Your task to perform on an android device: Search for "usb-c to usb-a" on ebay.com, select the first entry, and add it to the cart. Image 0: 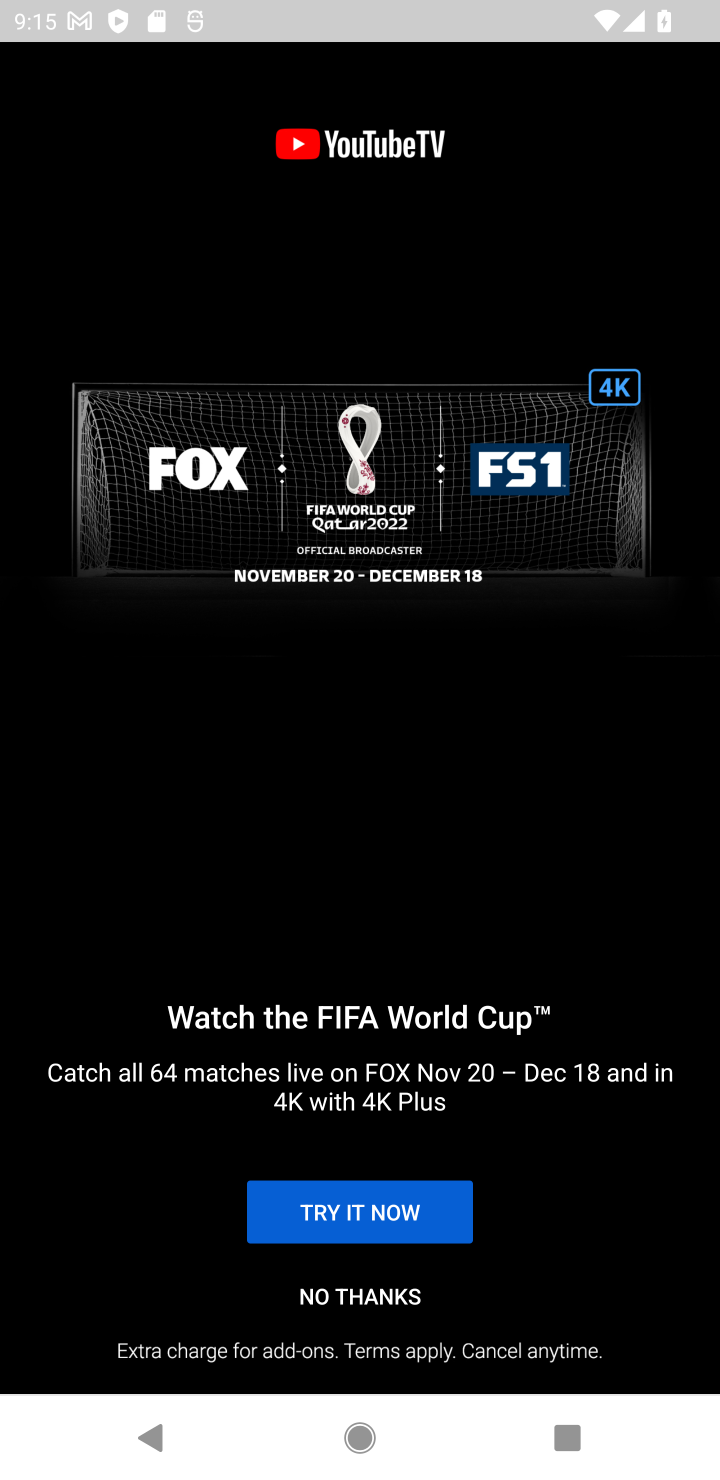
Step 0: press home button
Your task to perform on an android device: Search for "usb-c to usb-a" on ebay.com, select the first entry, and add it to the cart. Image 1: 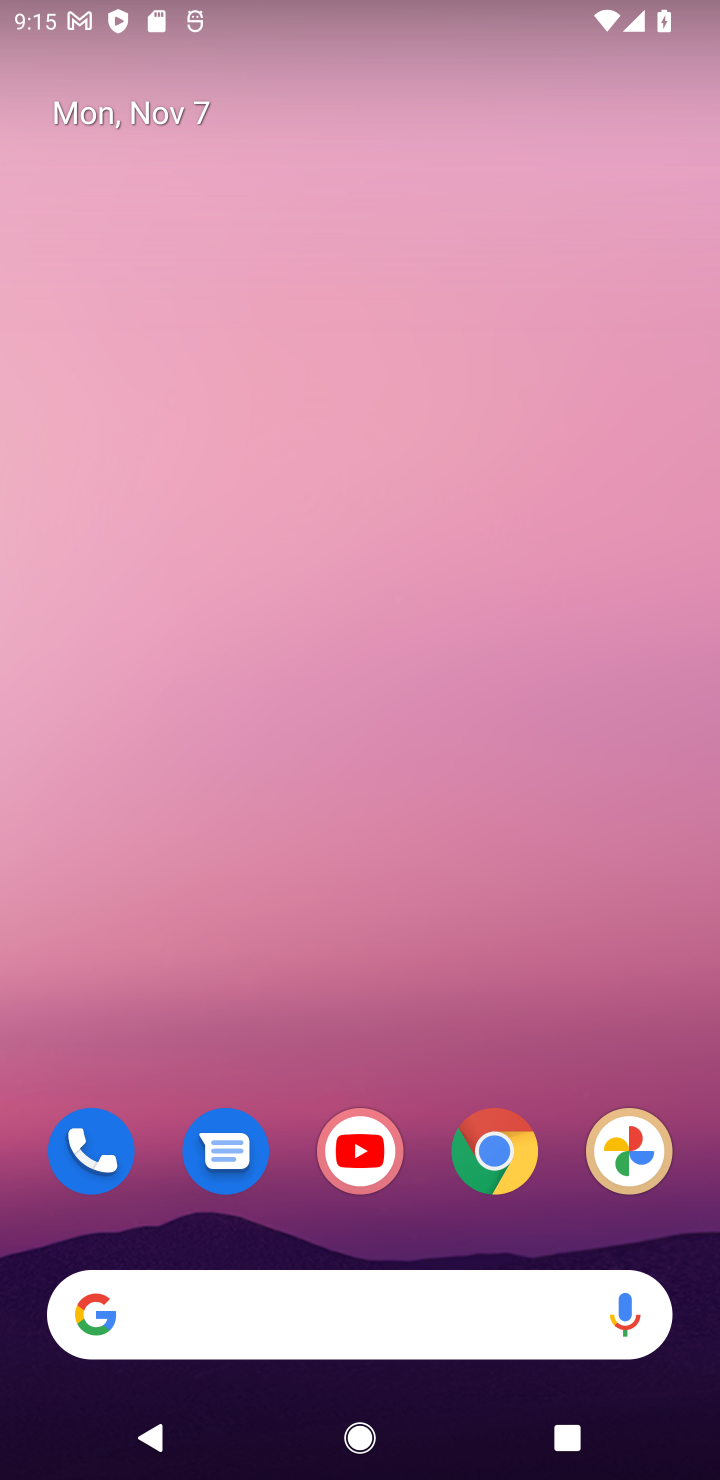
Step 1: click (504, 1153)
Your task to perform on an android device: Search for "usb-c to usb-a" on ebay.com, select the first entry, and add it to the cart. Image 2: 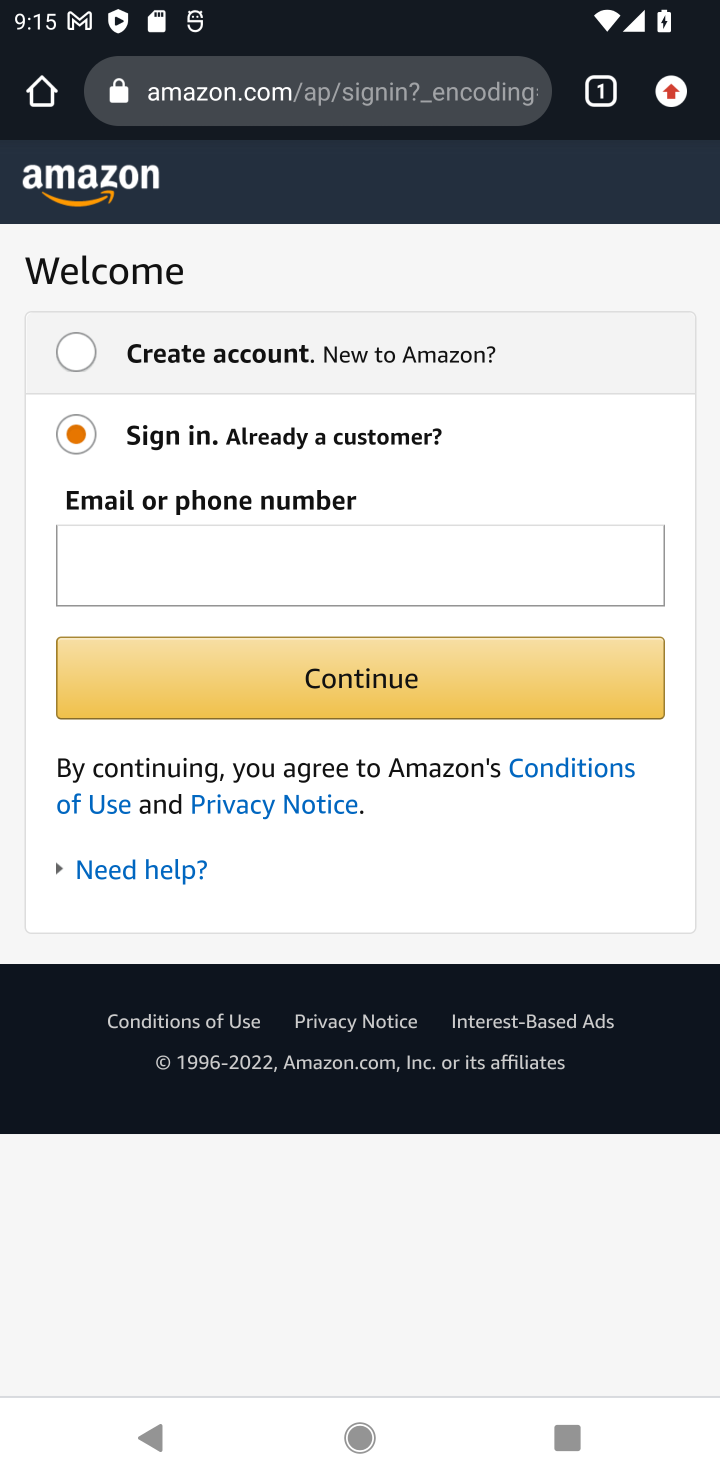
Step 2: click (366, 109)
Your task to perform on an android device: Search for "usb-c to usb-a" on ebay.com, select the first entry, and add it to the cart. Image 3: 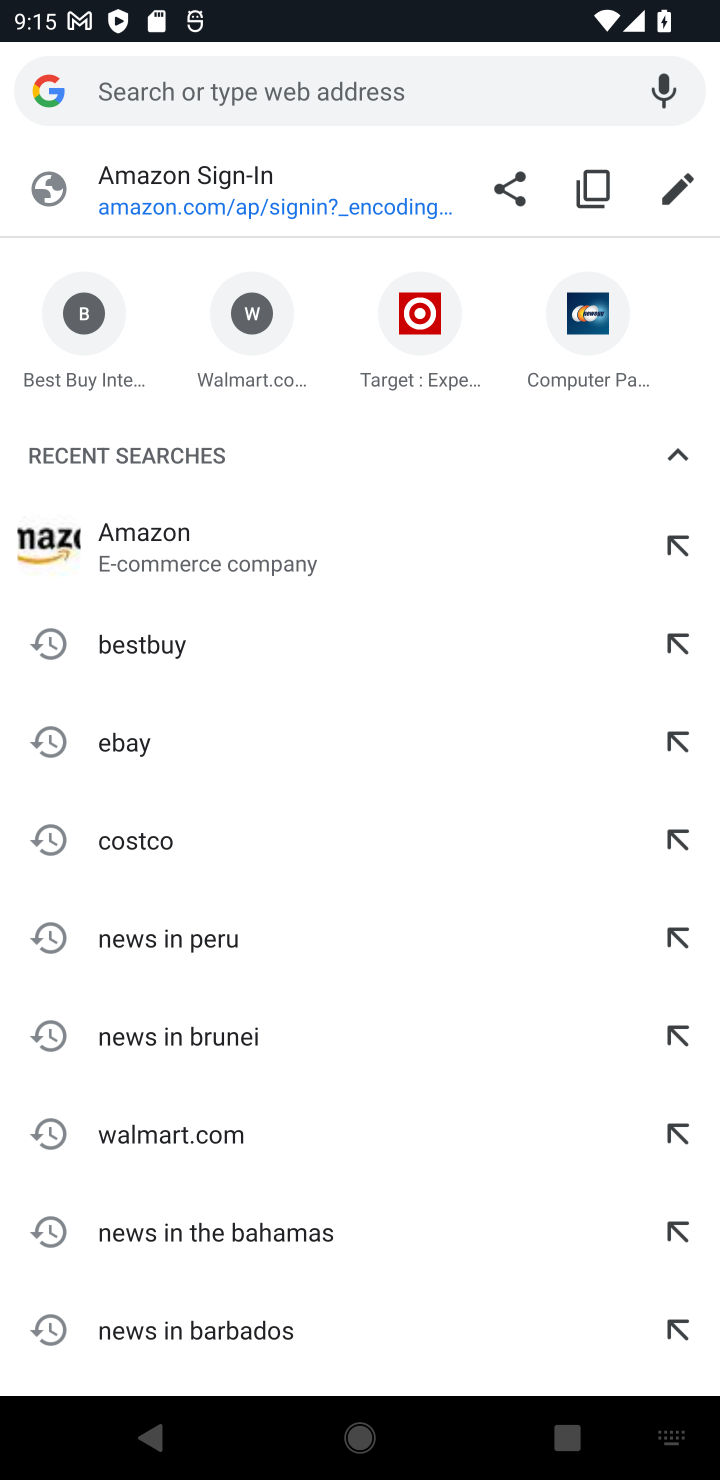
Step 3: click (111, 747)
Your task to perform on an android device: Search for "usb-c to usb-a" on ebay.com, select the first entry, and add it to the cart. Image 4: 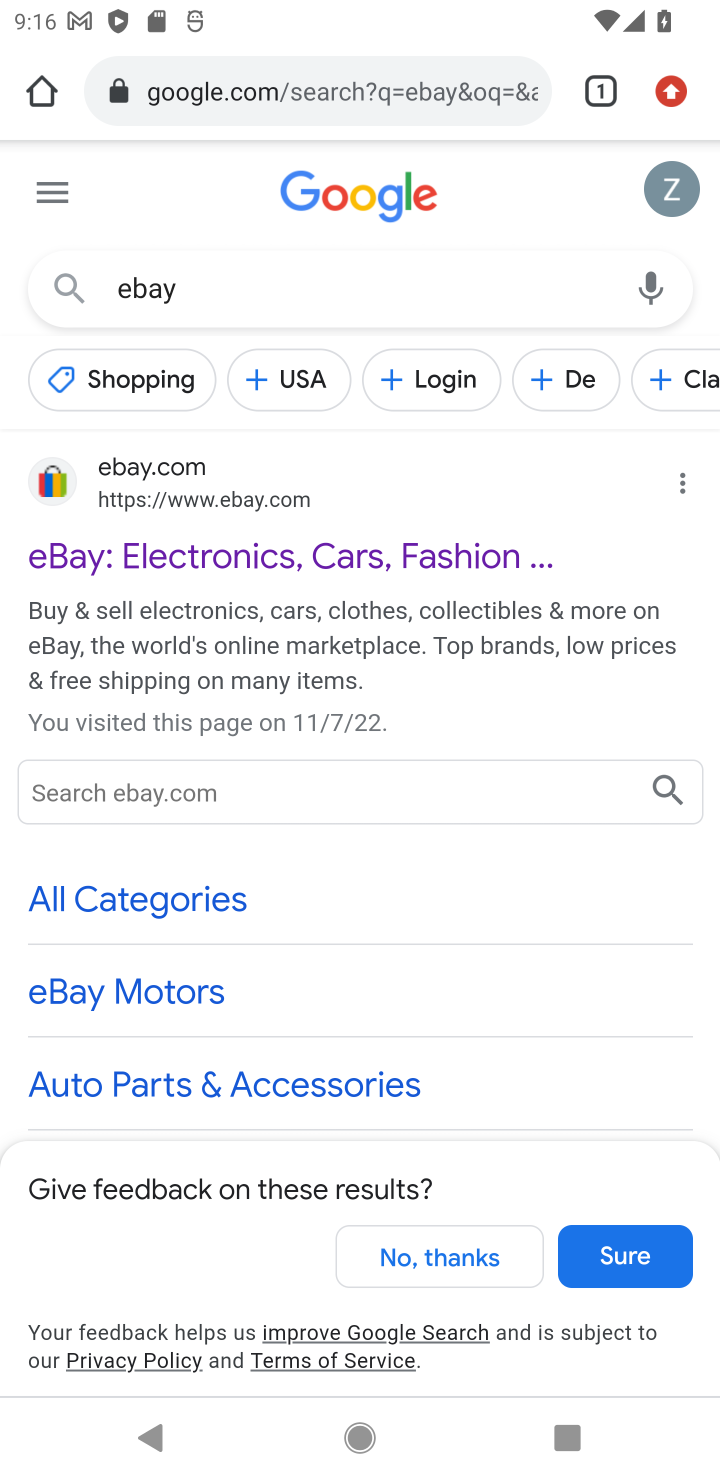
Step 4: click (278, 550)
Your task to perform on an android device: Search for "usb-c to usb-a" on ebay.com, select the first entry, and add it to the cart. Image 5: 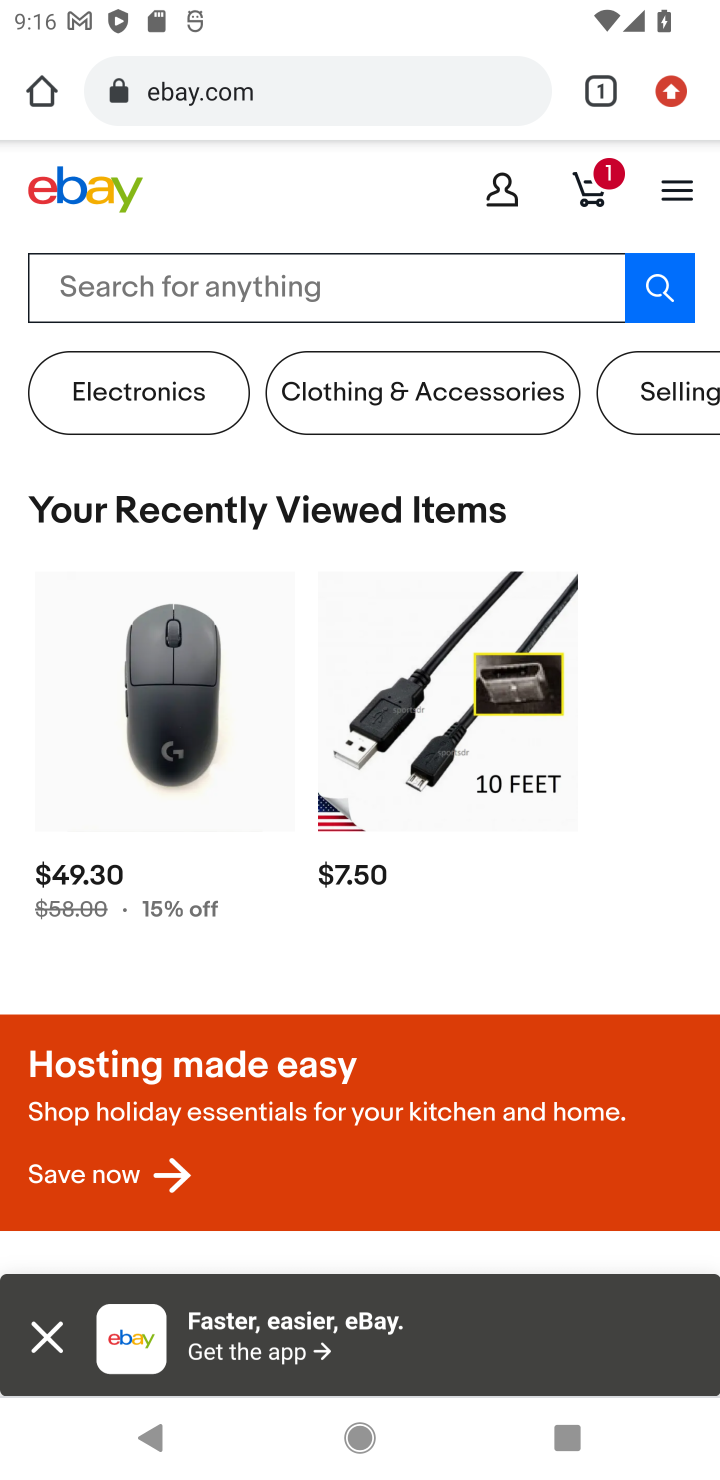
Step 5: click (289, 286)
Your task to perform on an android device: Search for "usb-c to usb-a" on ebay.com, select the first entry, and add it to the cart. Image 6: 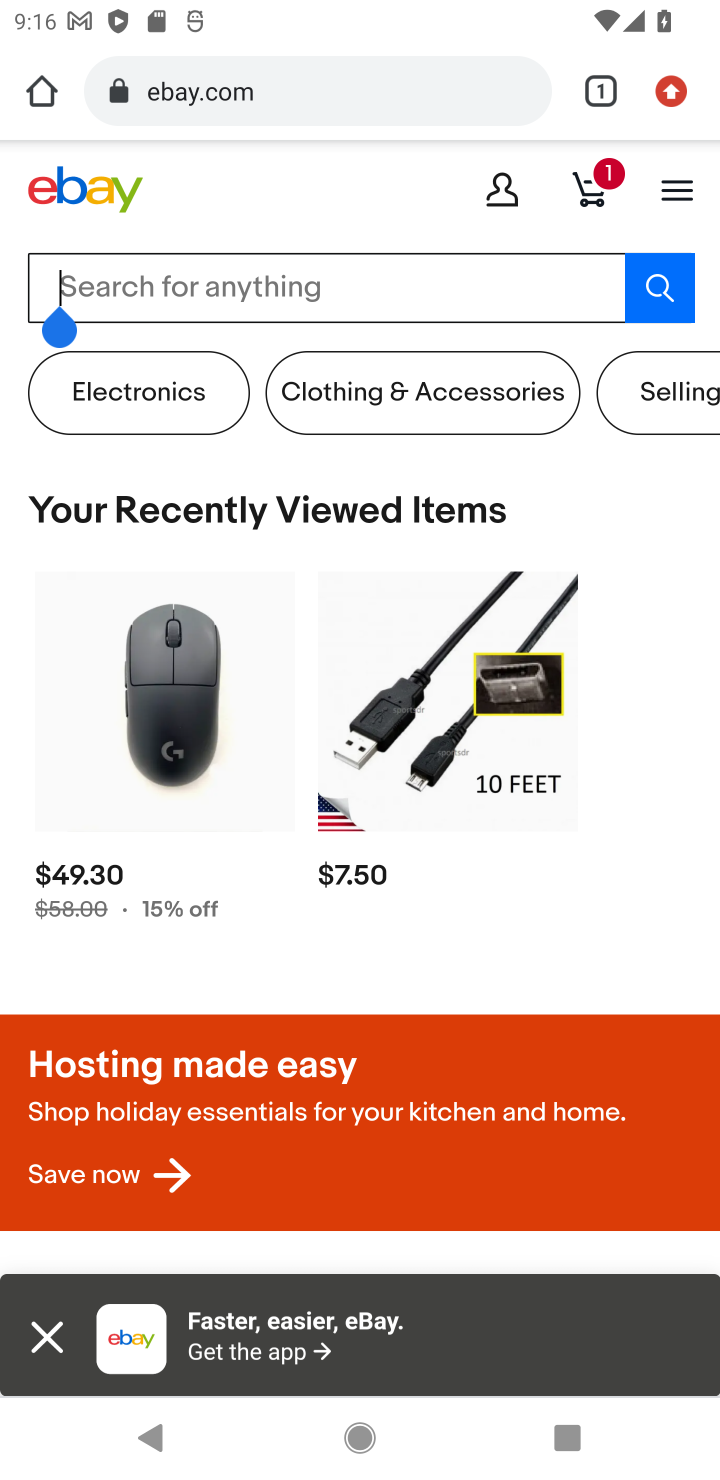
Step 6: type "usb-c to usb-a"
Your task to perform on an android device: Search for "usb-c to usb-a" on ebay.com, select the first entry, and add it to the cart. Image 7: 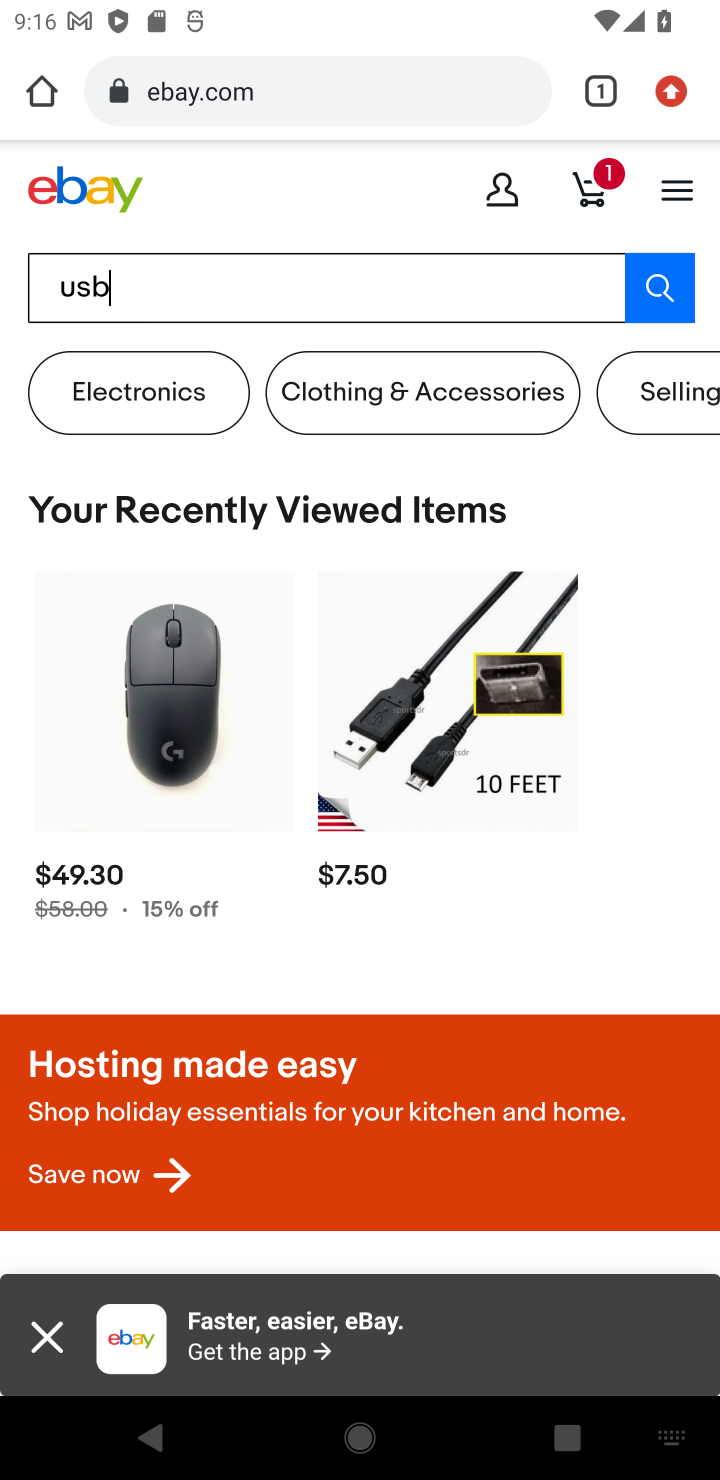
Step 7: press enter
Your task to perform on an android device: Search for "usb-c to usb-a" on ebay.com, select the first entry, and add it to the cart. Image 8: 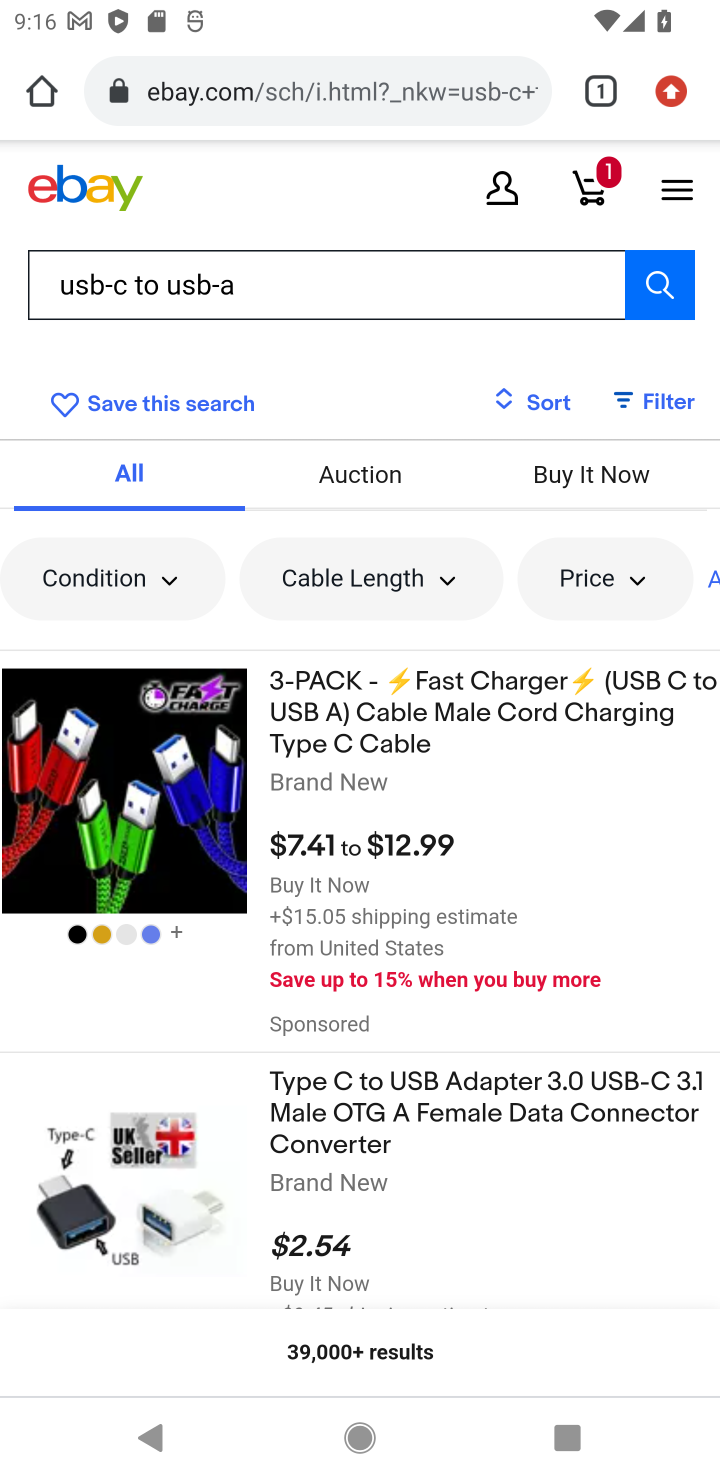
Step 8: click (468, 678)
Your task to perform on an android device: Search for "usb-c to usb-a" on ebay.com, select the first entry, and add it to the cart. Image 9: 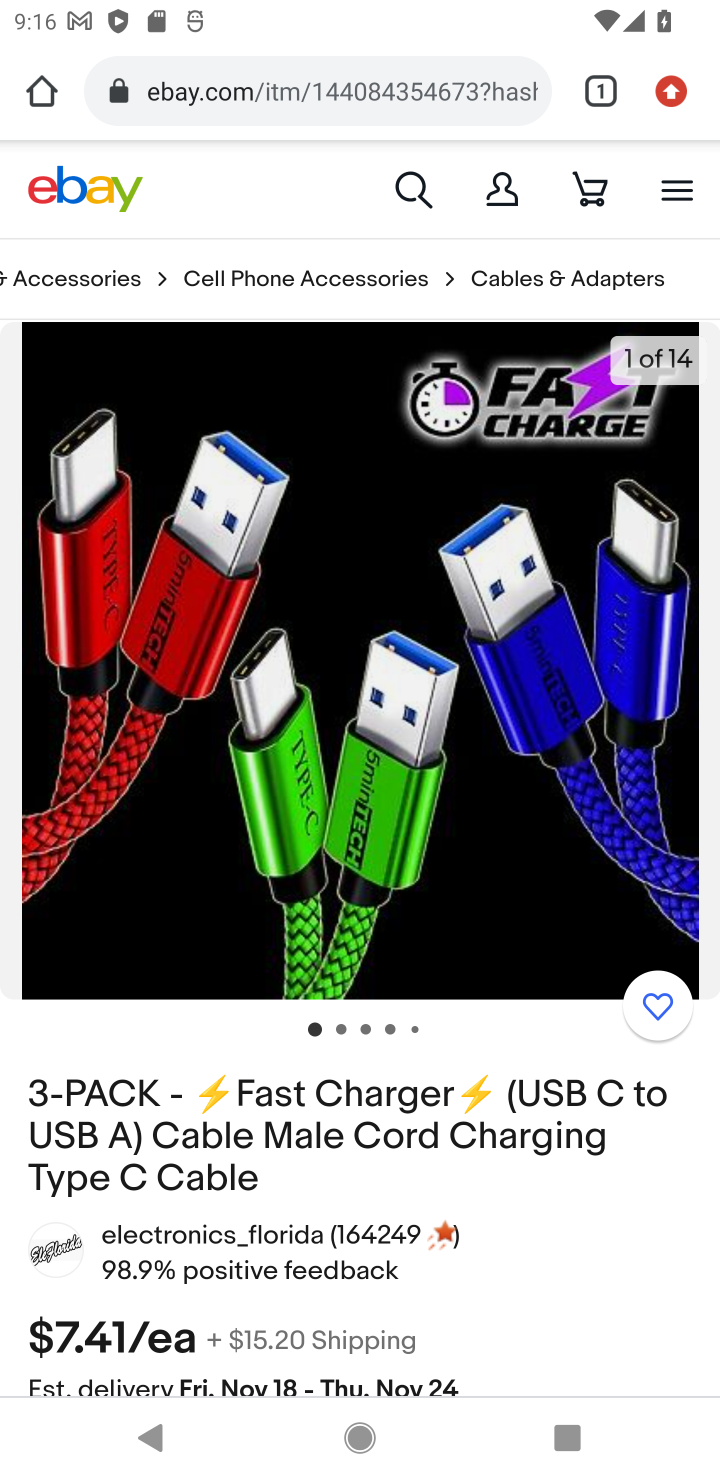
Step 9: drag from (400, 1289) to (686, 362)
Your task to perform on an android device: Search for "usb-c to usb-a" on ebay.com, select the first entry, and add it to the cart. Image 10: 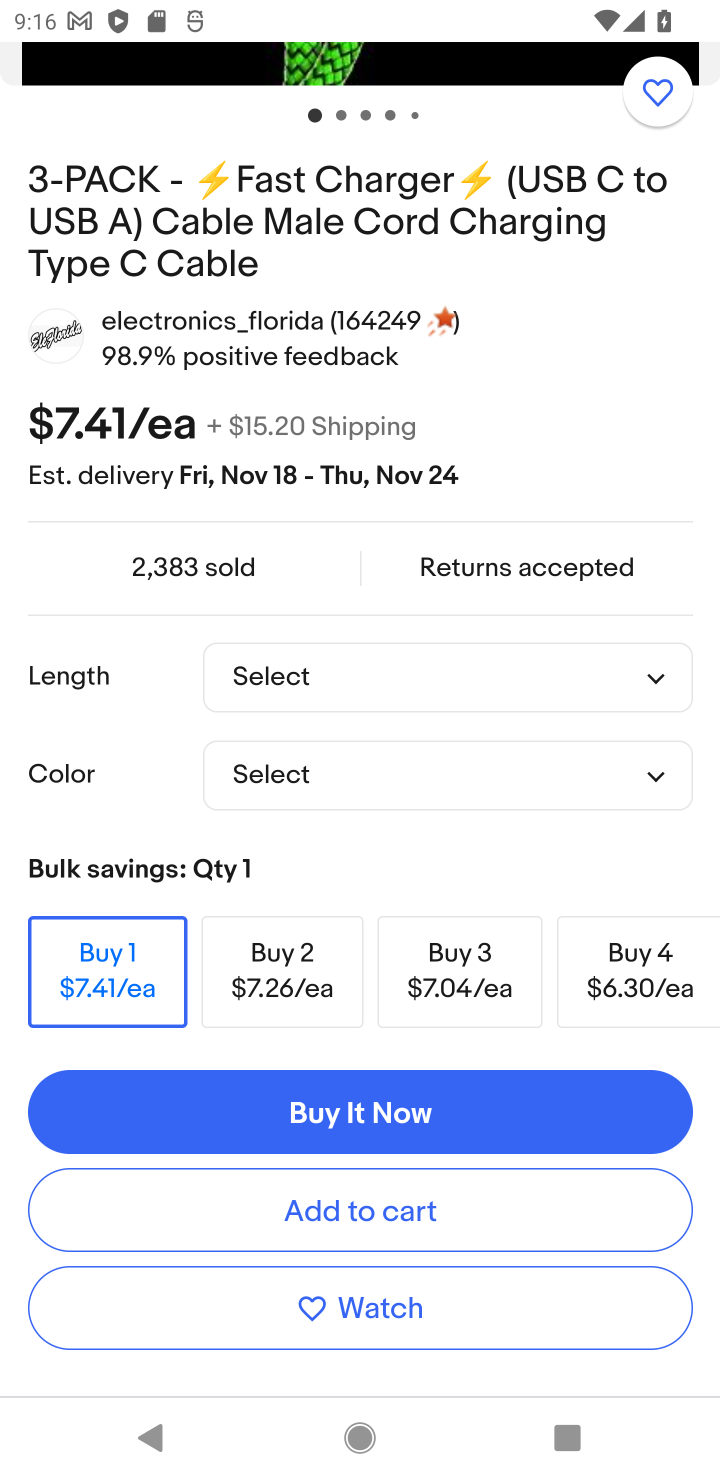
Step 10: click (362, 1213)
Your task to perform on an android device: Search for "usb-c to usb-a" on ebay.com, select the first entry, and add it to the cart. Image 11: 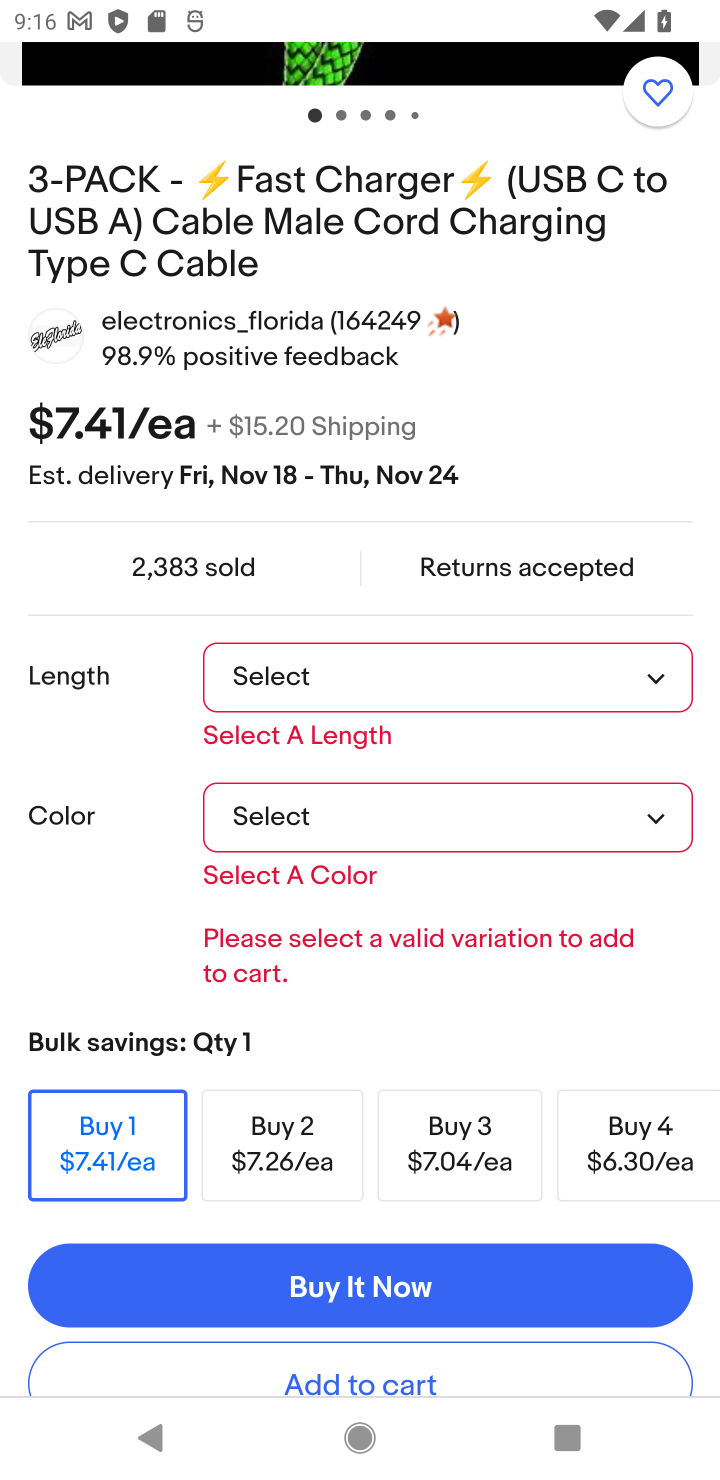
Step 11: click (653, 678)
Your task to perform on an android device: Search for "usb-c to usb-a" on ebay.com, select the first entry, and add it to the cart. Image 12: 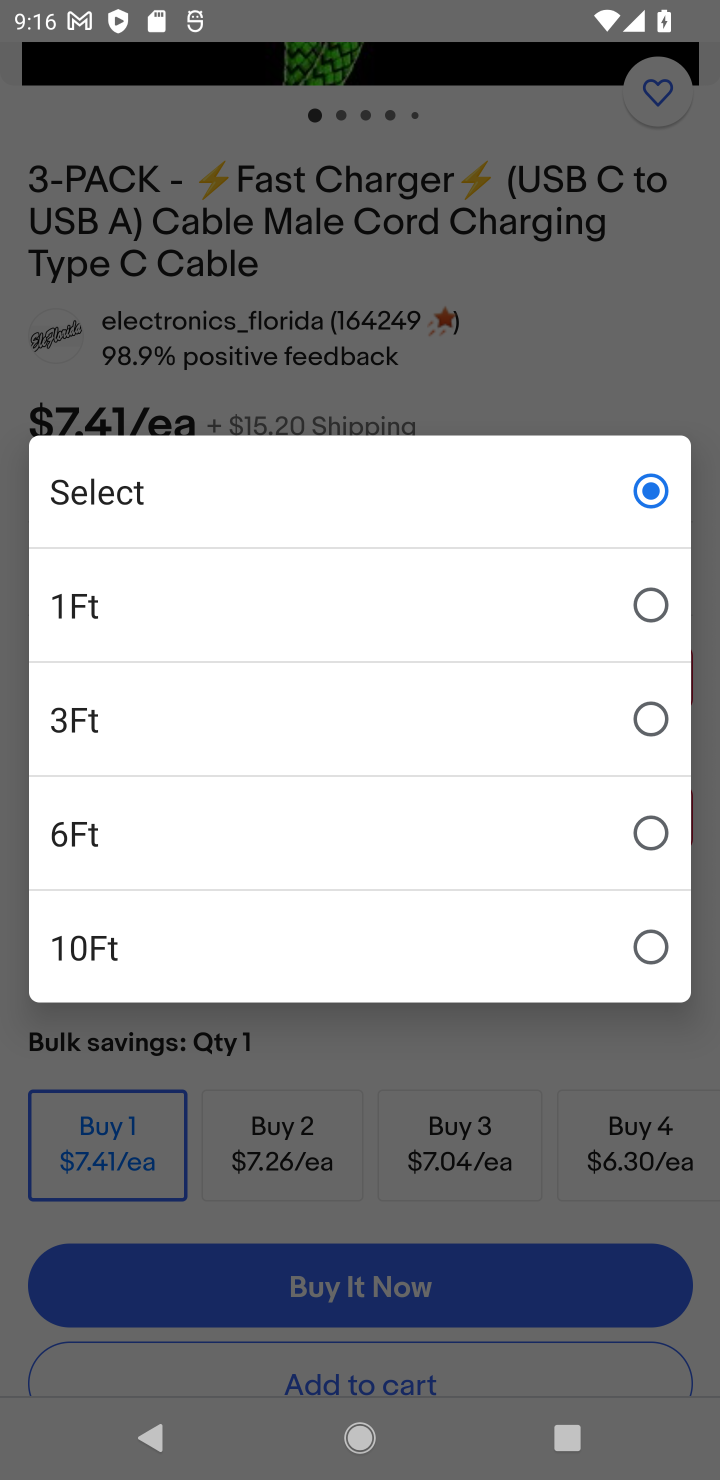
Step 12: click (651, 601)
Your task to perform on an android device: Search for "usb-c to usb-a" on ebay.com, select the first entry, and add it to the cart. Image 13: 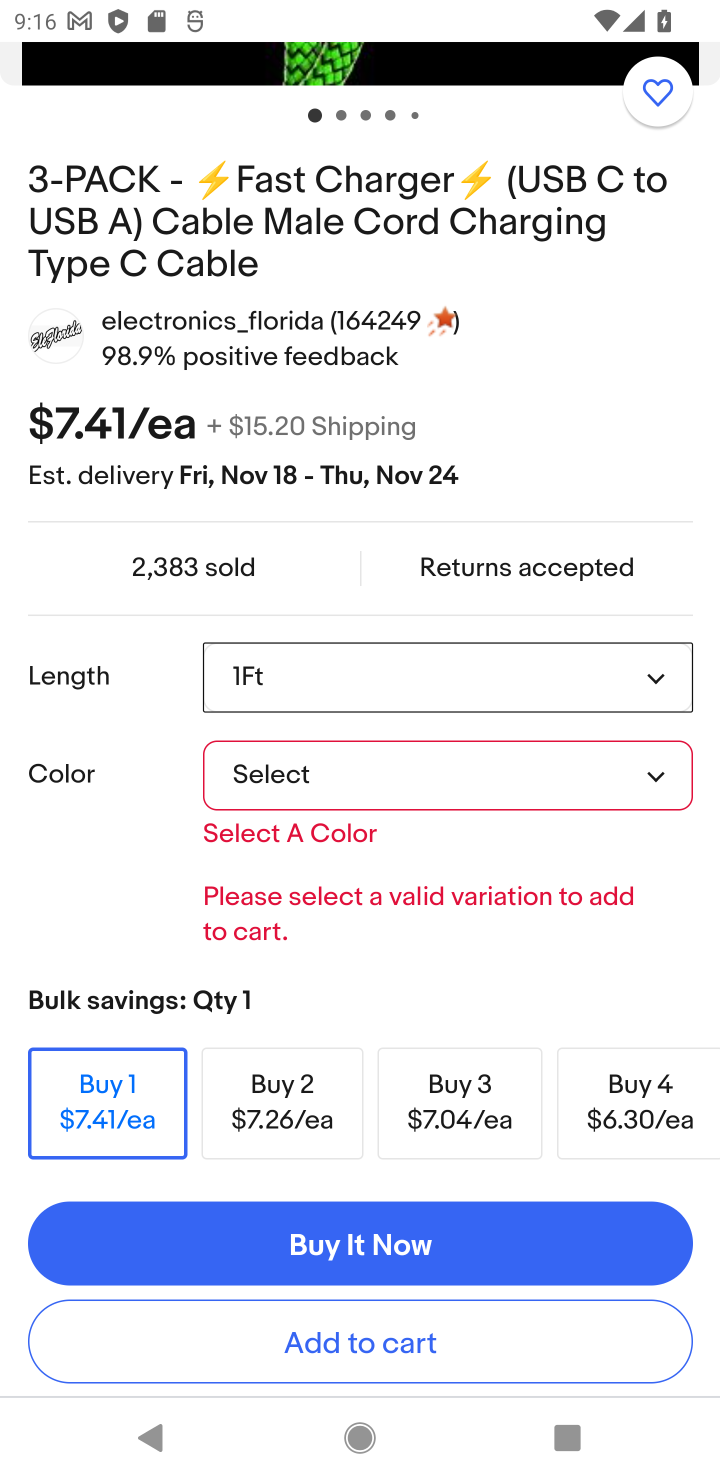
Step 13: click (654, 766)
Your task to perform on an android device: Search for "usb-c to usb-a" on ebay.com, select the first entry, and add it to the cart. Image 14: 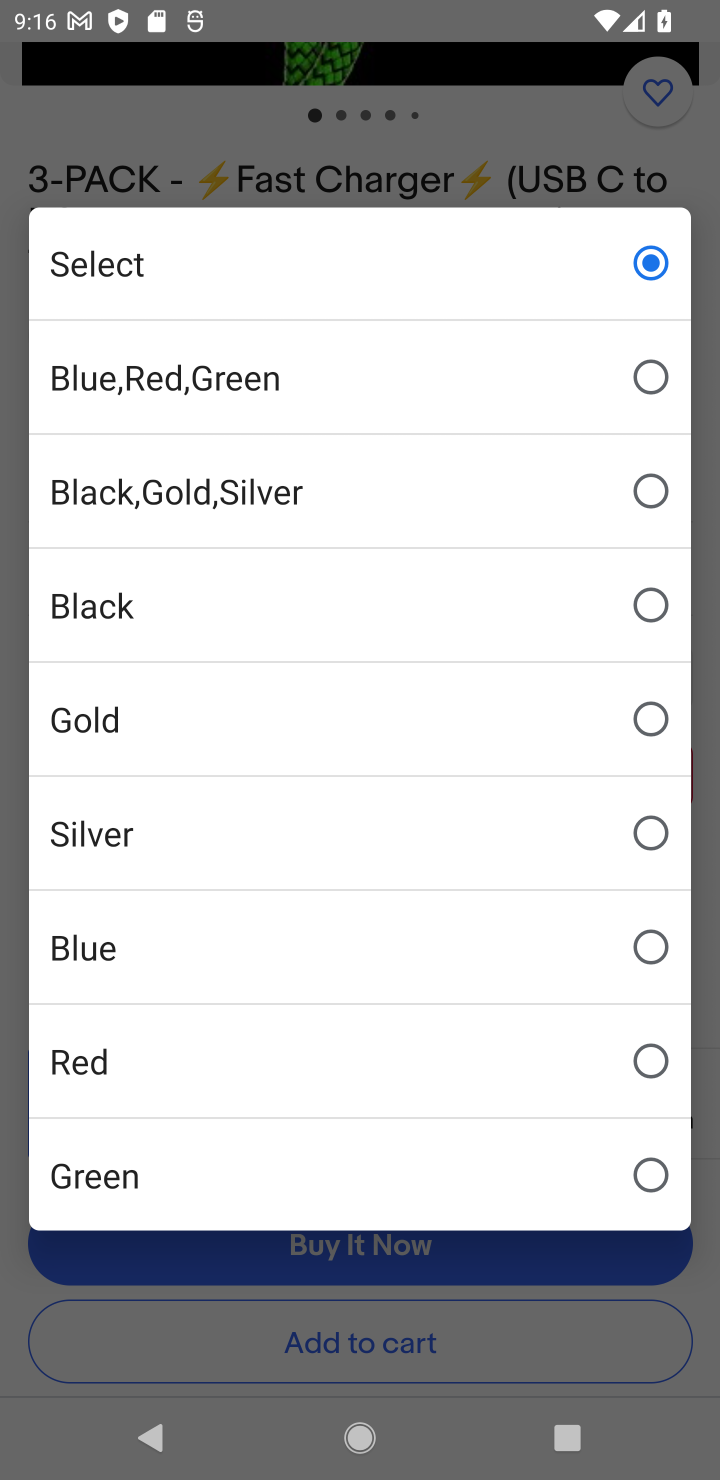
Step 14: click (648, 360)
Your task to perform on an android device: Search for "usb-c to usb-a" on ebay.com, select the first entry, and add it to the cart. Image 15: 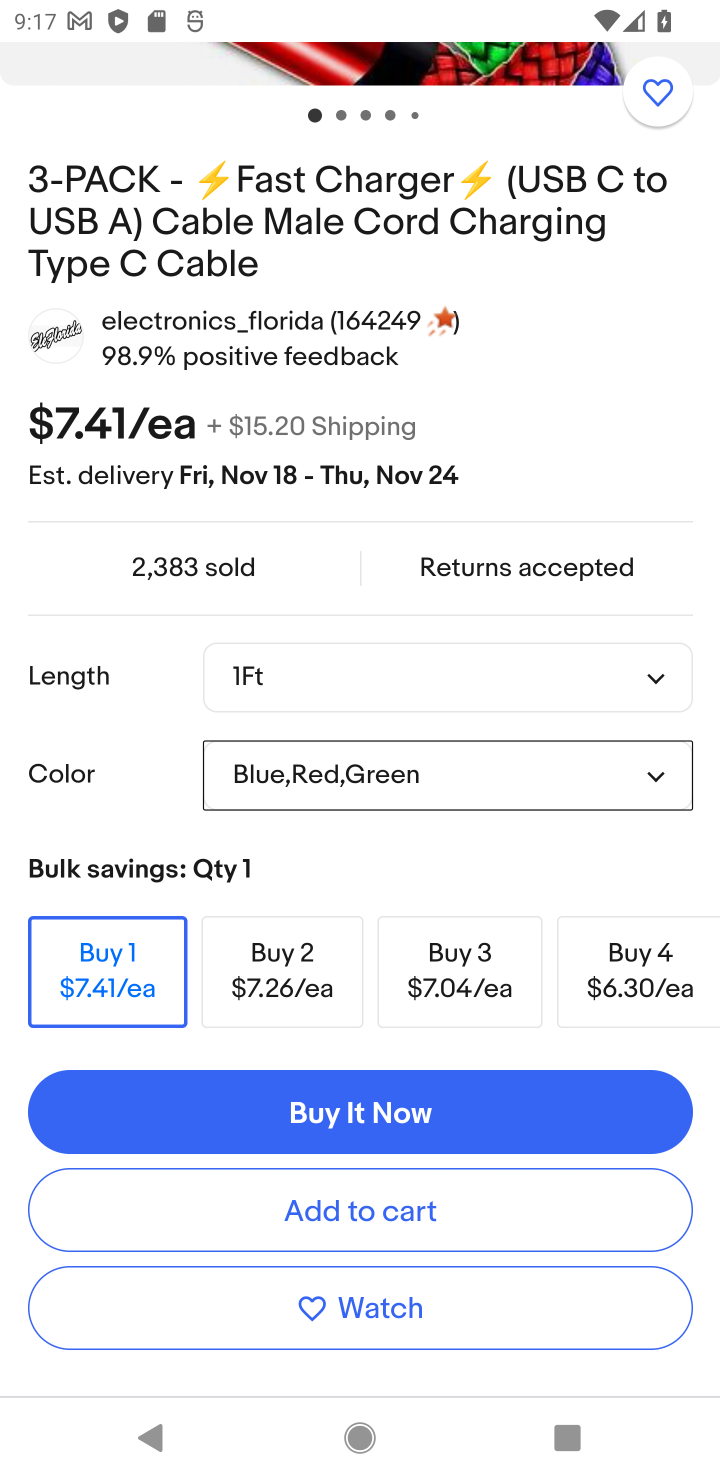
Step 15: click (369, 1212)
Your task to perform on an android device: Search for "usb-c to usb-a" on ebay.com, select the first entry, and add it to the cart. Image 16: 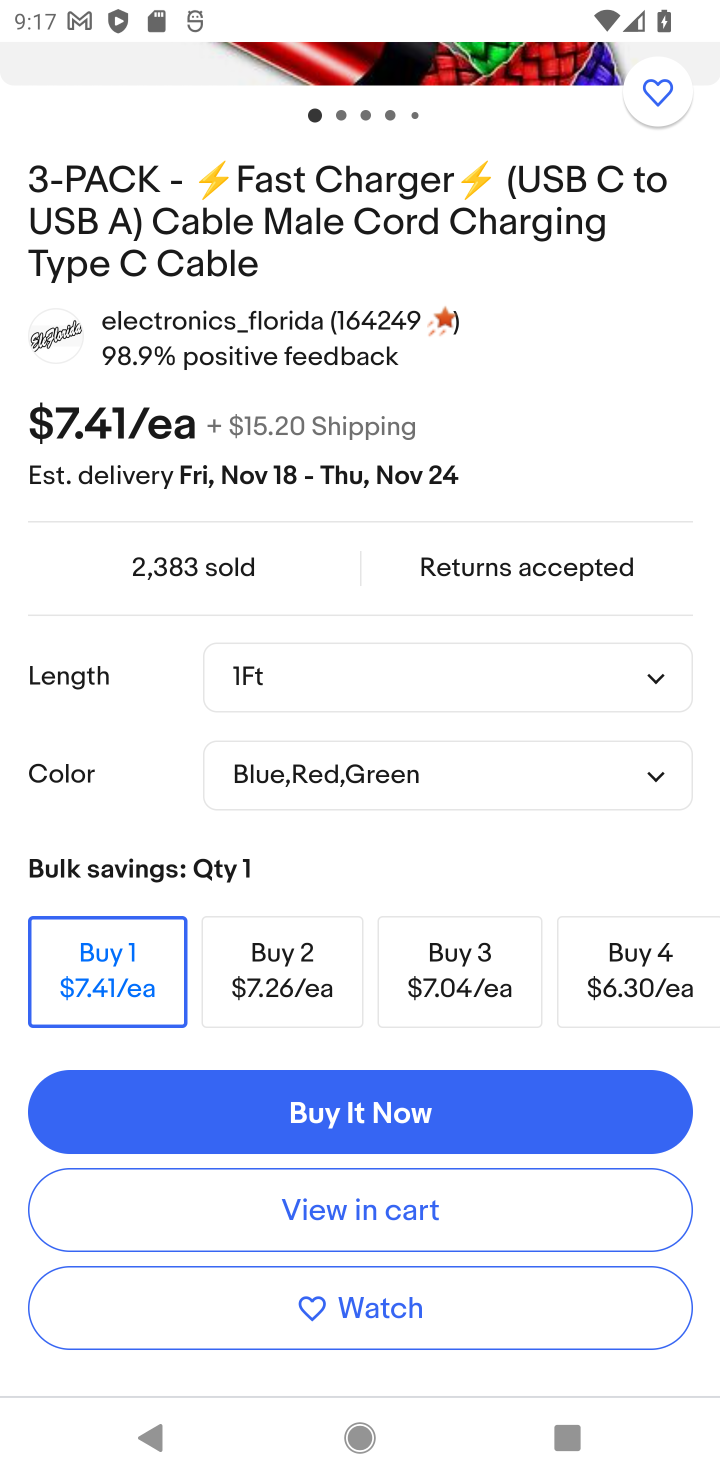
Step 16: click (365, 1216)
Your task to perform on an android device: Search for "usb-c to usb-a" on ebay.com, select the first entry, and add it to the cart. Image 17: 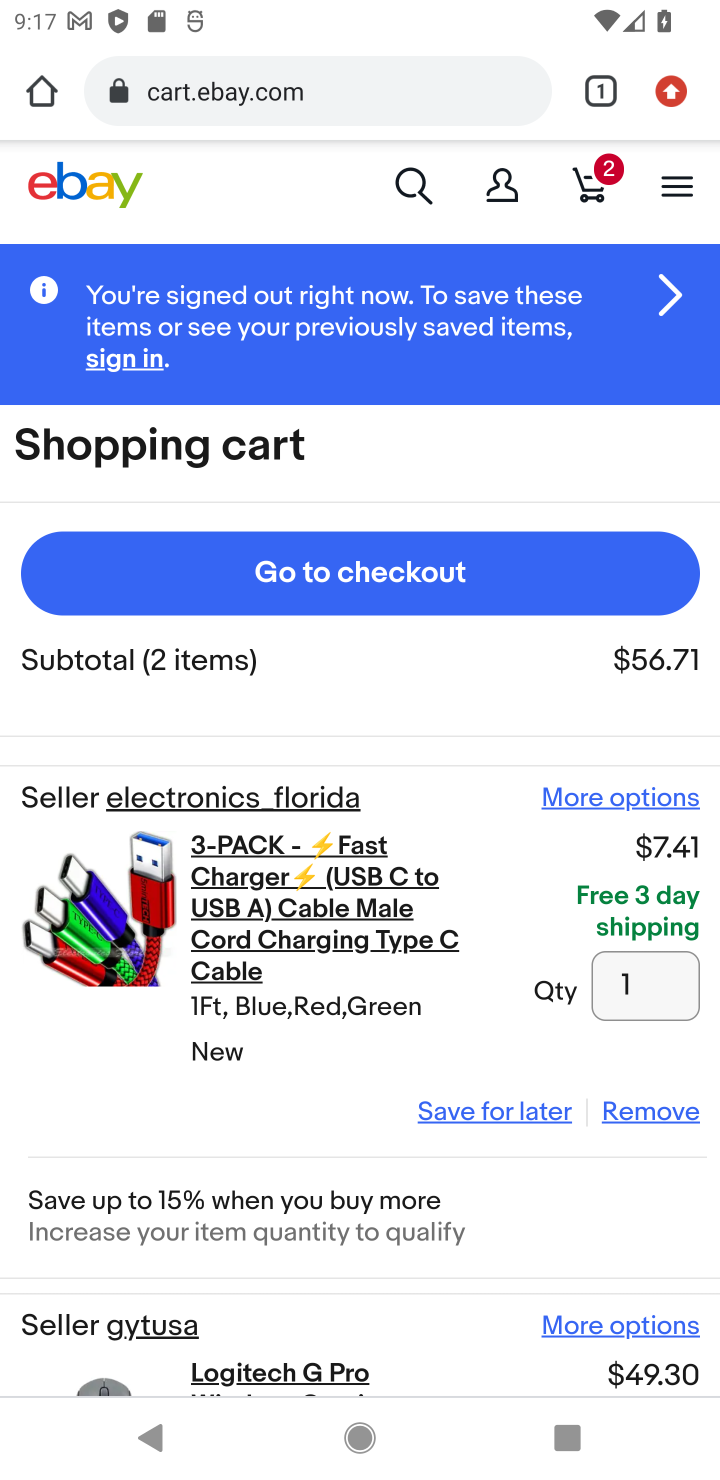
Step 17: task complete